Your task to perform on an android device: turn on airplane mode Image 0: 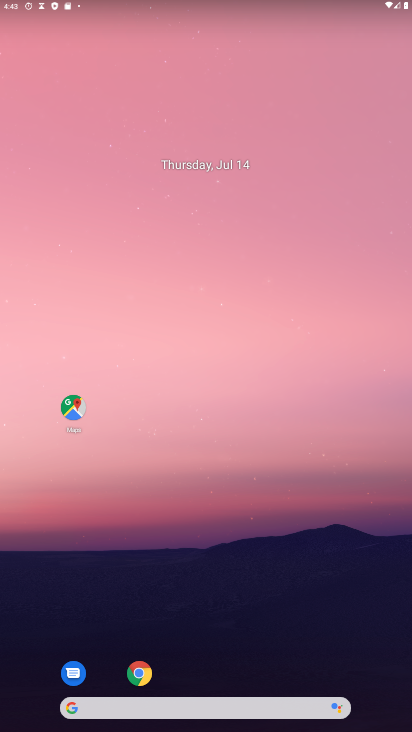
Step 0: drag from (257, 704) to (106, 81)
Your task to perform on an android device: turn on airplane mode Image 1: 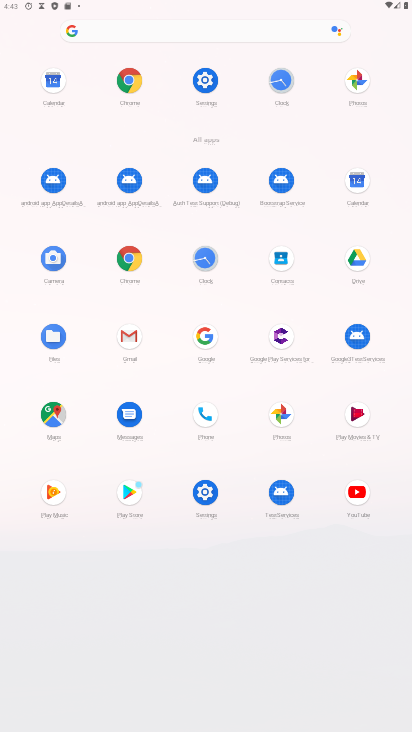
Step 1: click (204, 509)
Your task to perform on an android device: turn on airplane mode Image 2: 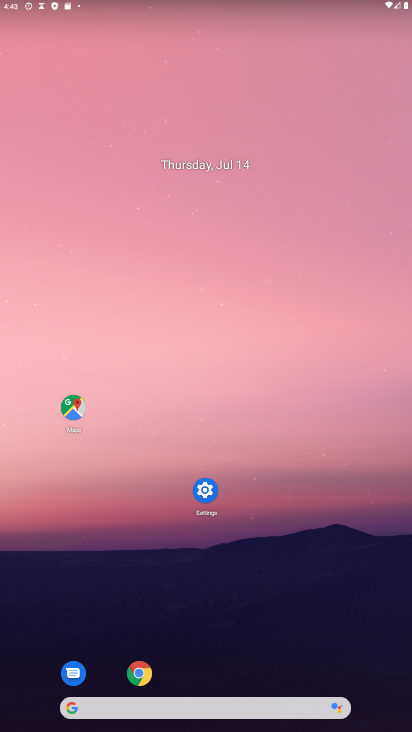
Step 2: click (112, 0)
Your task to perform on an android device: turn on airplane mode Image 3: 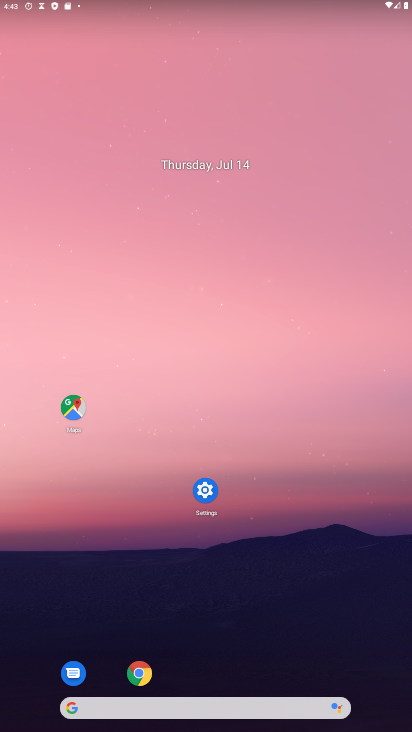
Step 3: drag from (215, 620) to (170, 138)
Your task to perform on an android device: turn on airplane mode Image 4: 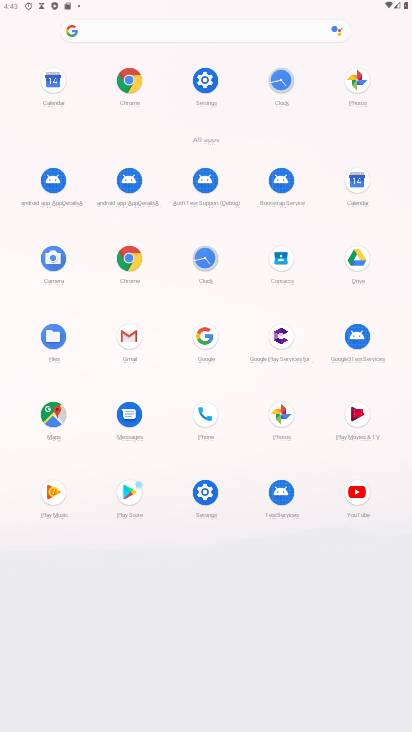
Step 4: drag from (252, 586) to (173, 104)
Your task to perform on an android device: turn on airplane mode Image 5: 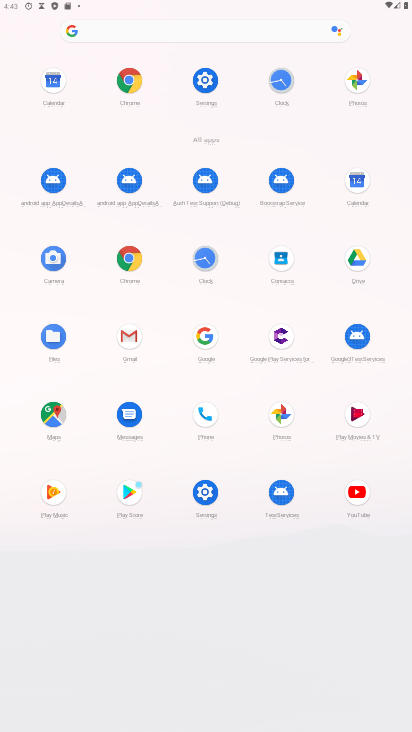
Step 5: click (207, 497)
Your task to perform on an android device: turn on airplane mode Image 6: 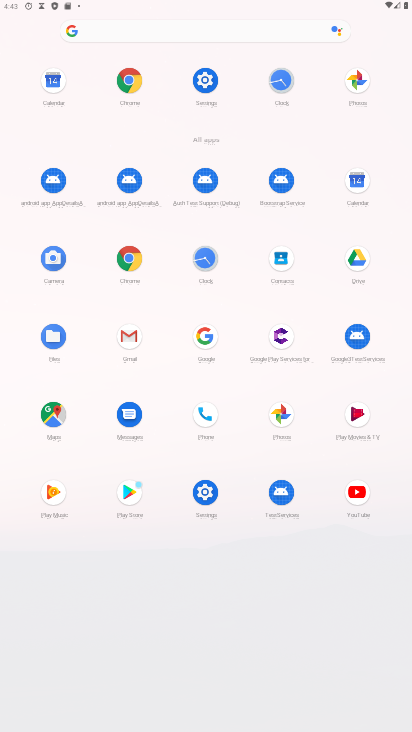
Step 6: click (208, 497)
Your task to perform on an android device: turn on airplane mode Image 7: 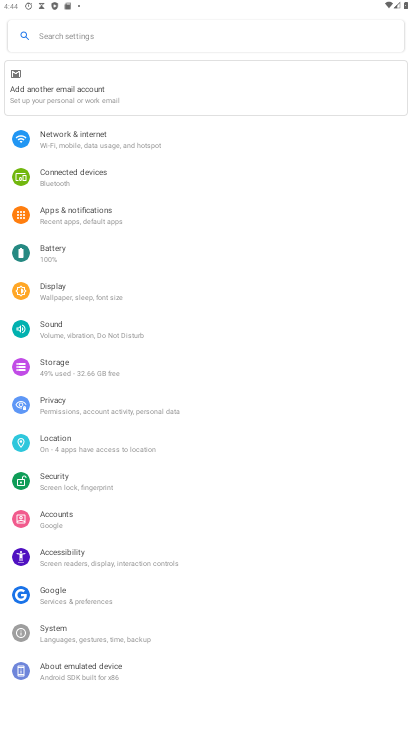
Step 7: click (72, 137)
Your task to perform on an android device: turn on airplane mode Image 8: 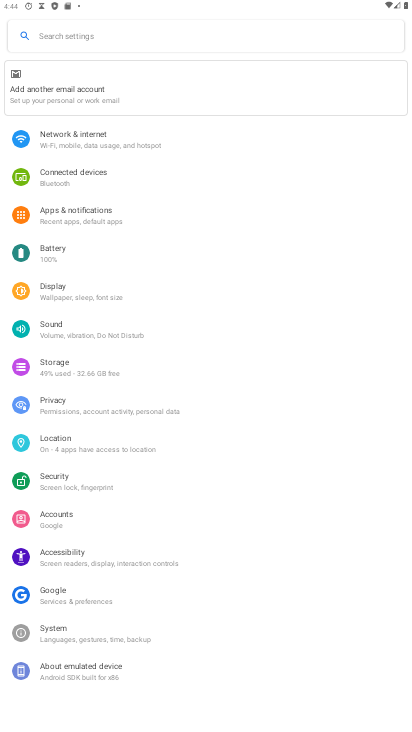
Step 8: click (75, 135)
Your task to perform on an android device: turn on airplane mode Image 9: 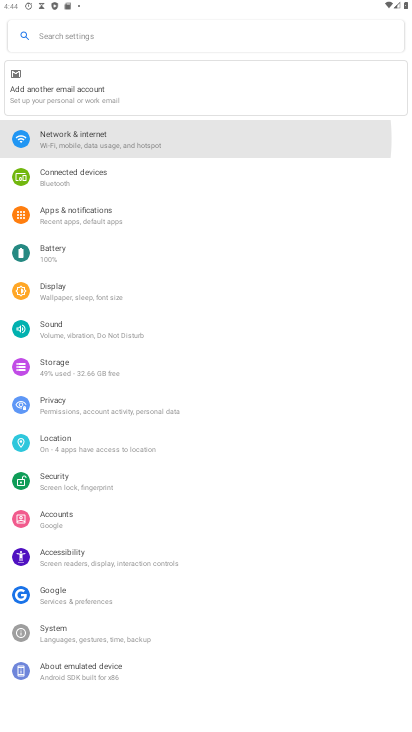
Step 9: click (75, 134)
Your task to perform on an android device: turn on airplane mode Image 10: 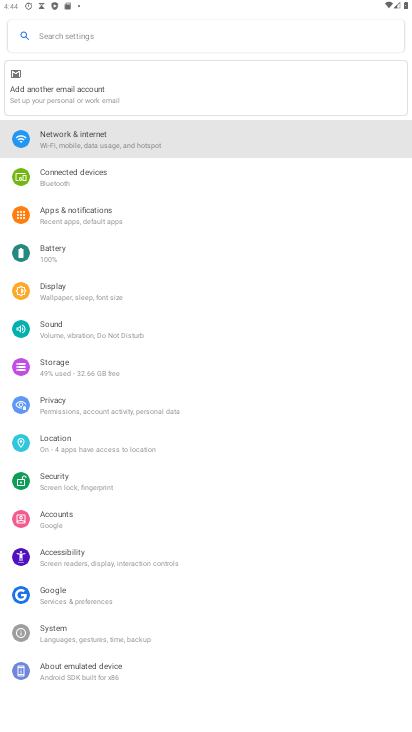
Step 10: click (76, 127)
Your task to perform on an android device: turn on airplane mode Image 11: 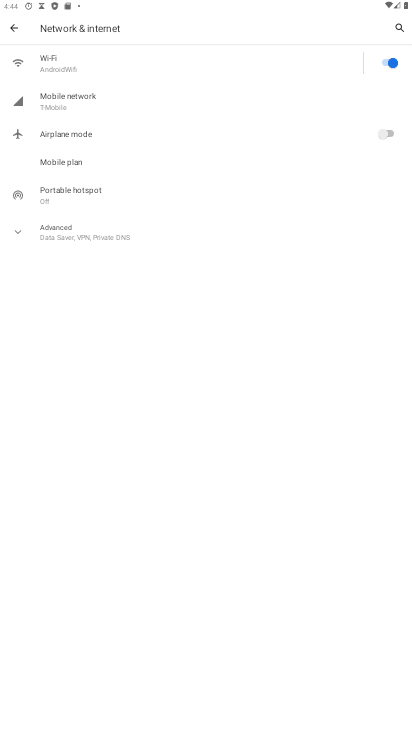
Step 11: click (374, 139)
Your task to perform on an android device: turn on airplane mode Image 12: 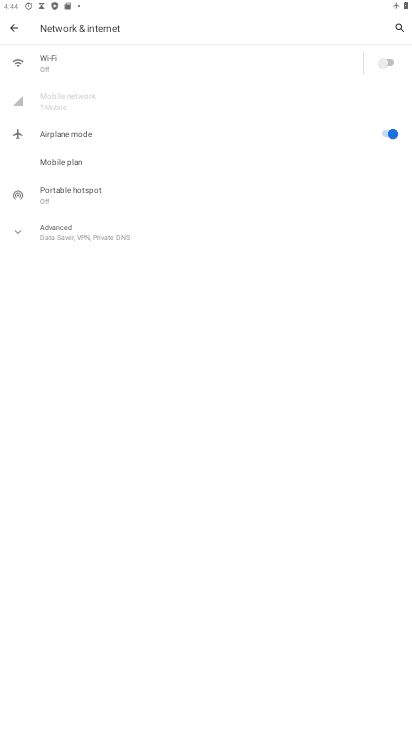
Step 12: task complete